Your task to perform on an android device: Open settings Image 0: 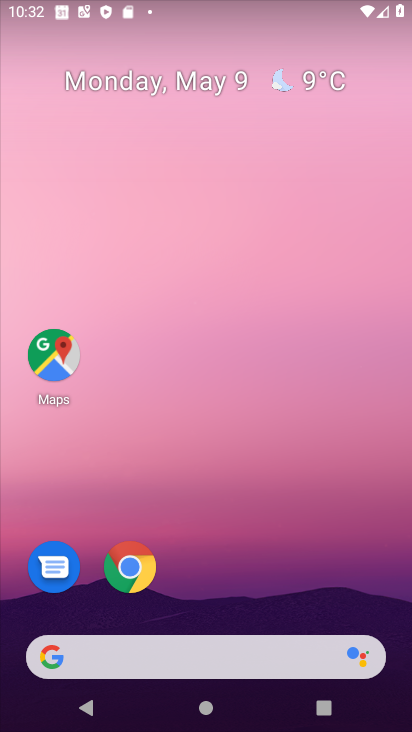
Step 0: drag from (248, 494) to (272, 71)
Your task to perform on an android device: Open settings Image 1: 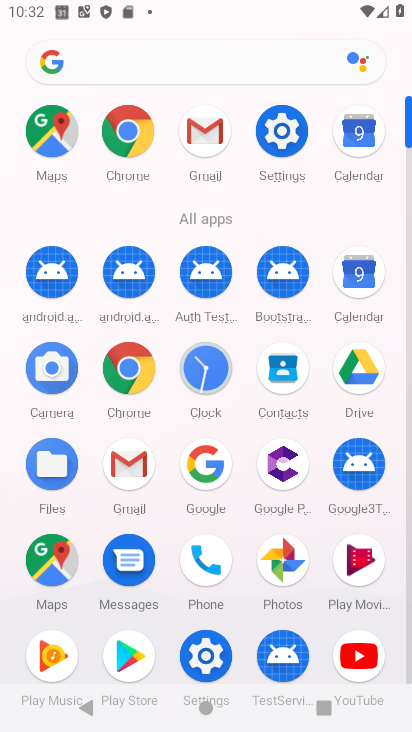
Step 1: click (281, 128)
Your task to perform on an android device: Open settings Image 2: 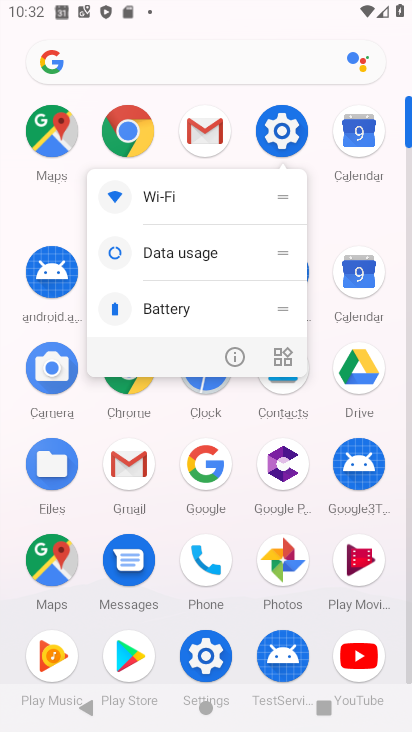
Step 2: click (282, 128)
Your task to perform on an android device: Open settings Image 3: 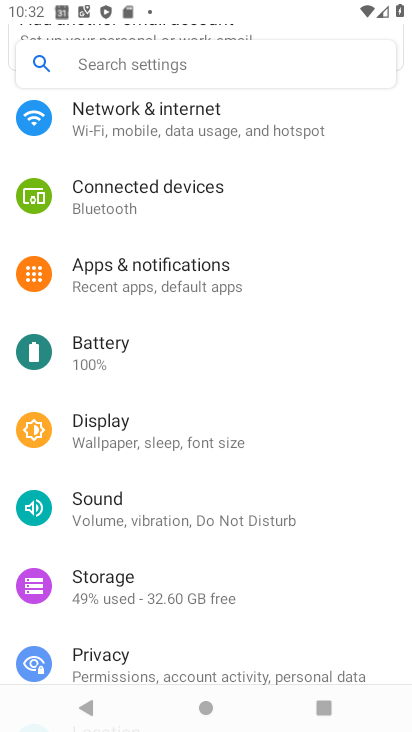
Step 3: task complete